Your task to perform on an android device: clear history in the chrome app Image 0: 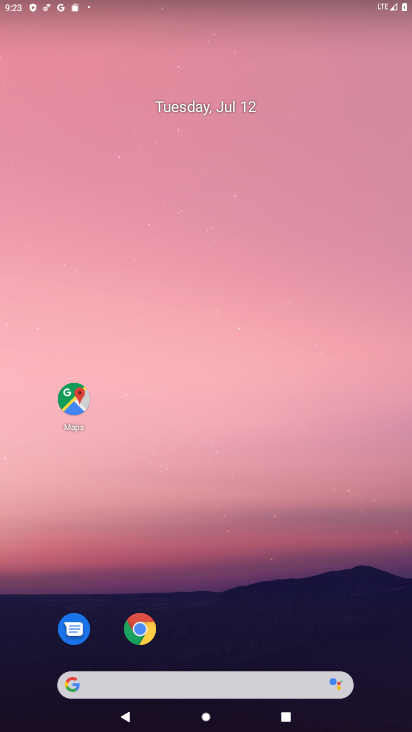
Step 0: drag from (273, 636) to (257, 222)
Your task to perform on an android device: clear history in the chrome app Image 1: 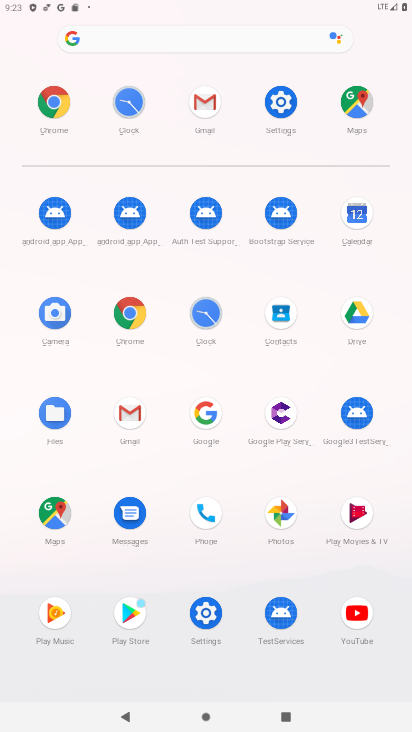
Step 1: click (52, 102)
Your task to perform on an android device: clear history in the chrome app Image 2: 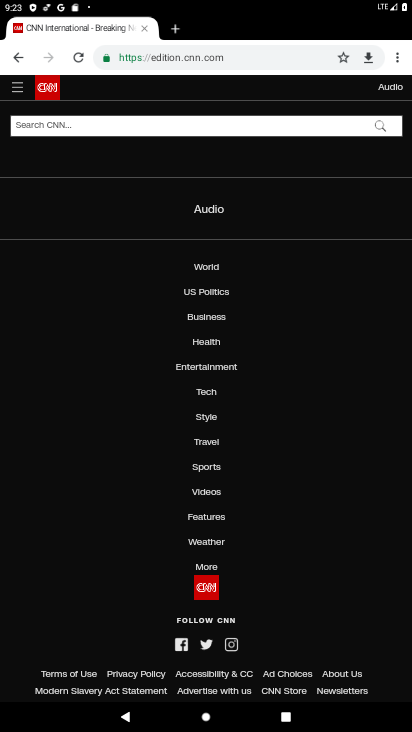
Step 2: click (397, 50)
Your task to perform on an android device: clear history in the chrome app Image 3: 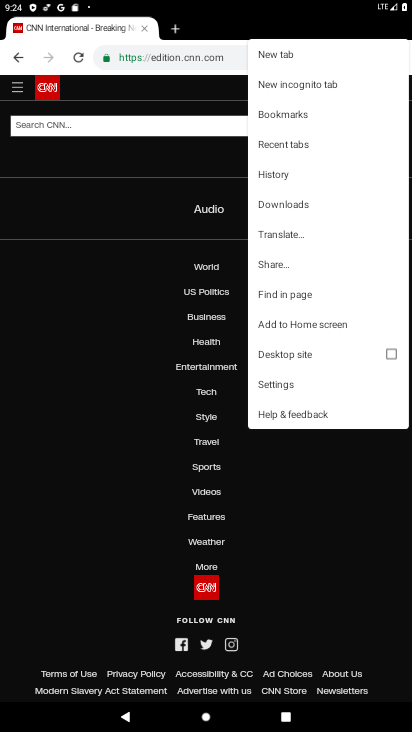
Step 3: click (291, 170)
Your task to perform on an android device: clear history in the chrome app Image 4: 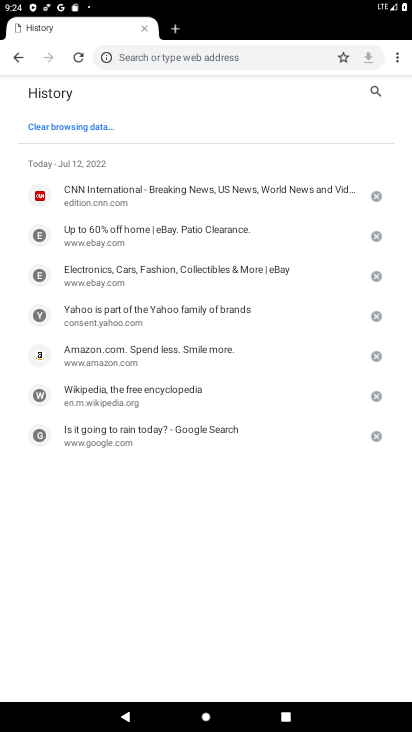
Step 4: click (88, 127)
Your task to perform on an android device: clear history in the chrome app Image 5: 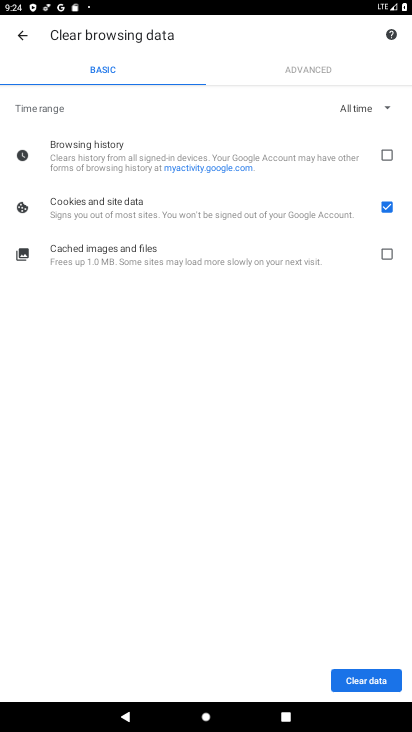
Step 5: click (388, 208)
Your task to perform on an android device: clear history in the chrome app Image 6: 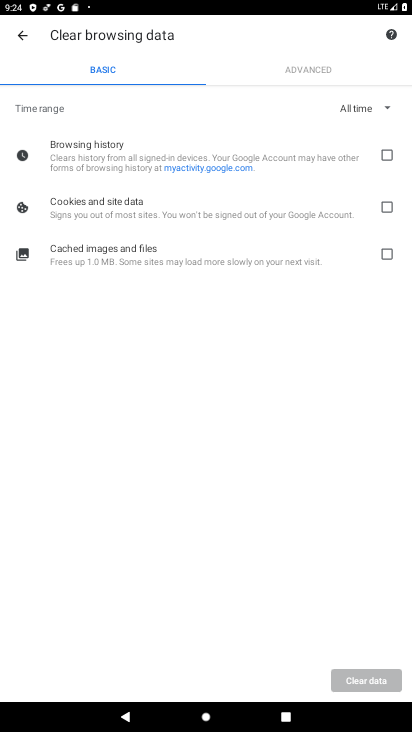
Step 6: click (390, 152)
Your task to perform on an android device: clear history in the chrome app Image 7: 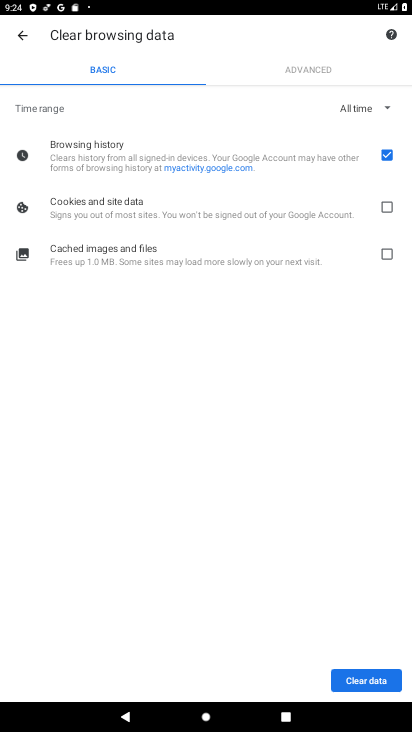
Step 7: click (377, 679)
Your task to perform on an android device: clear history in the chrome app Image 8: 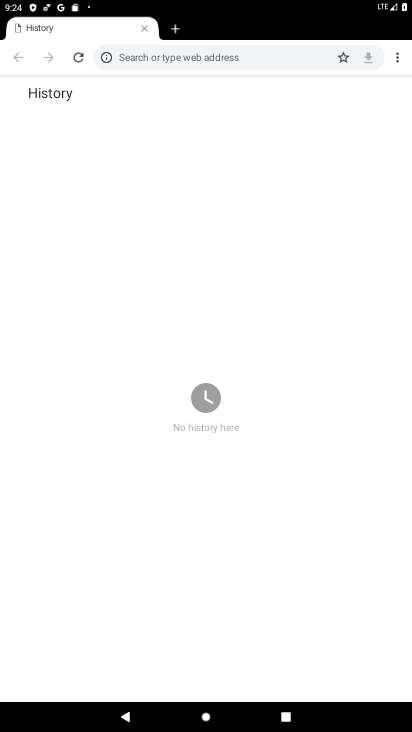
Step 8: task complete